Your task to perform on an android device: What's on my calendar tomorrow? Image 0: 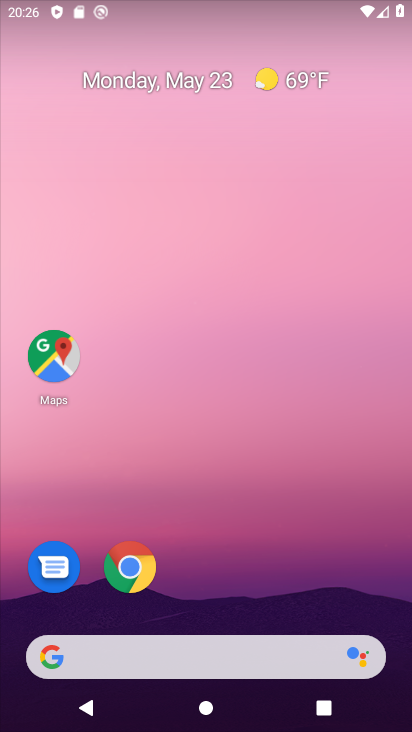
Step 0: drag from (193, 563) to (247, 5)
Your task to perform on an android device: What's on my calendar tomorrow? Image 1: 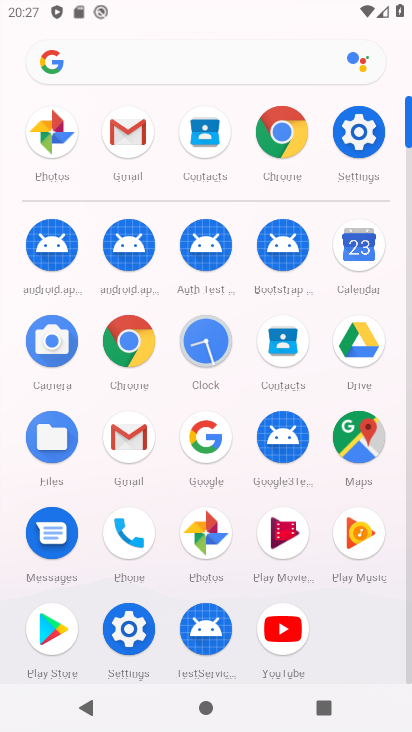
Step 1: click (369, 252)
Your task to perform on an android device: What's on my calendar tomorrow? Image 2: 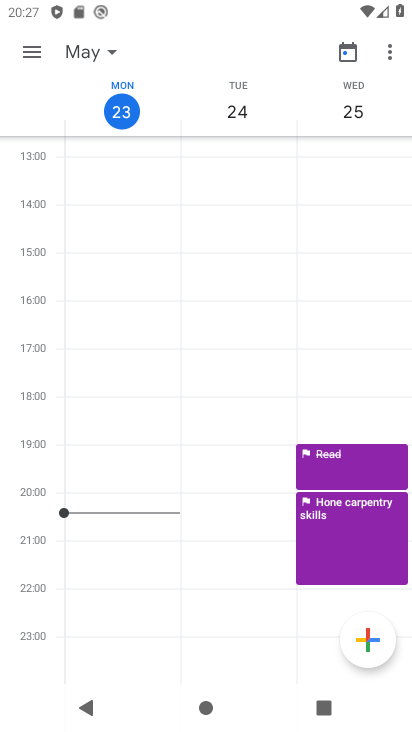
Step 2: task complete